Your task to perform on an android device: Open Wikipedia Image 0: 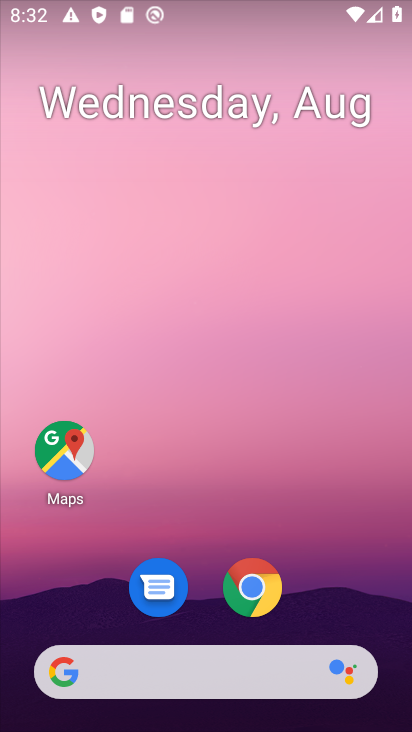
Step 0: drag from (315, 705) to (301, 245)
Your task to perform on an android device: Open Wikipedia Image 1: 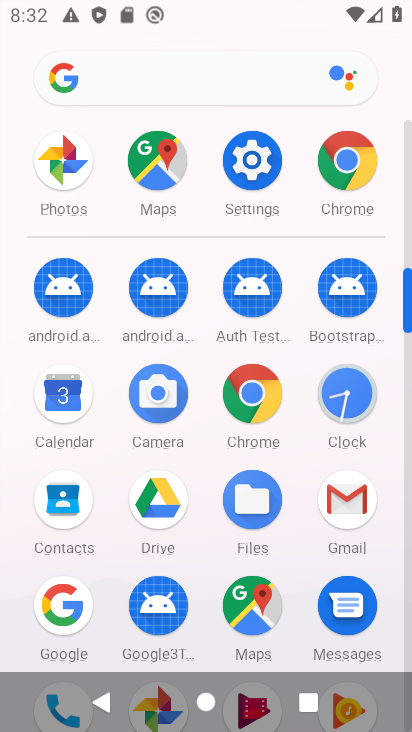
Step 1: click (354, 170)
Your task to perform on an android device: Open Wikipedia Image 2: 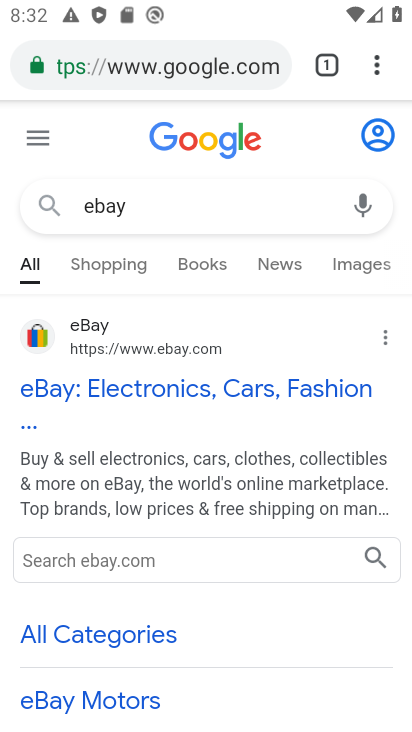
Step 2: drag from (372, 47) to (113, 120)
Your task to perform on an android device: Open Wikipedia Image 3: 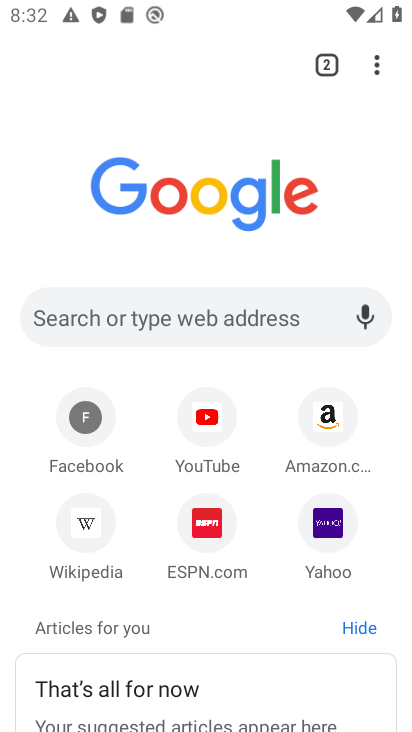
Step 3: click (81, 531)
Your task to perform on an android device: Open Wikipedia Image 4: 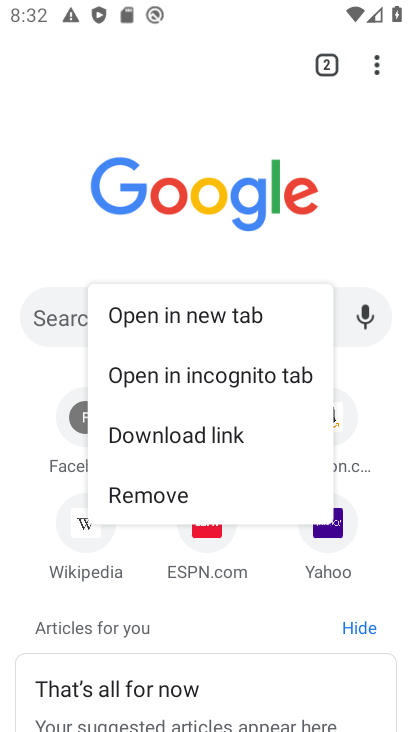
Step 4: click (81, 531)
Your task to perform on an android device: Open Wikipedia Image 5: 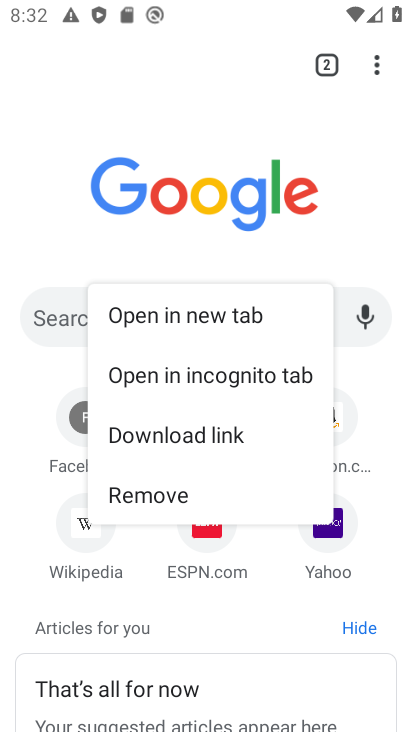
Step 5: click (87, 523)
Your task to perform on an android device: Open Wikipedia Image 6: 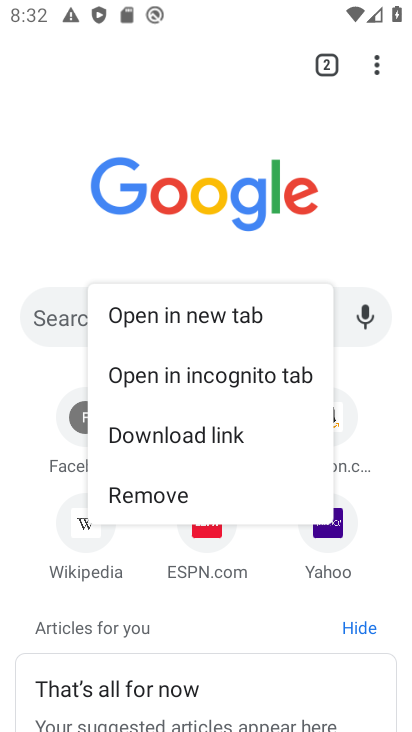
Step 6: click (85, 523)
Your task to perform on an android device: Open Wikipedia Image 7: 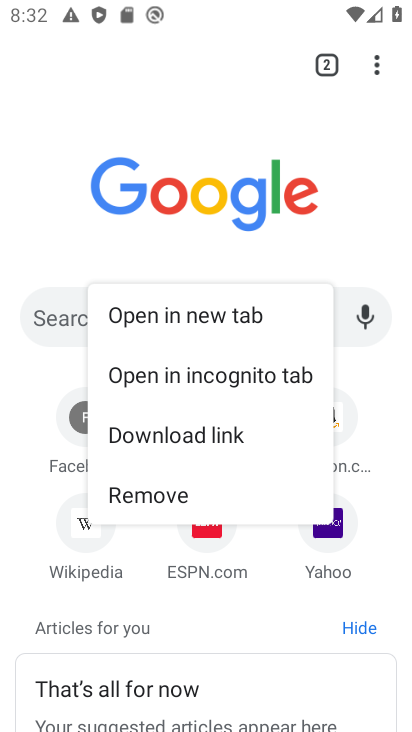
Step 7: click (89, 564)
Your task to perform on an android device: Open Wikipedia Image 8: 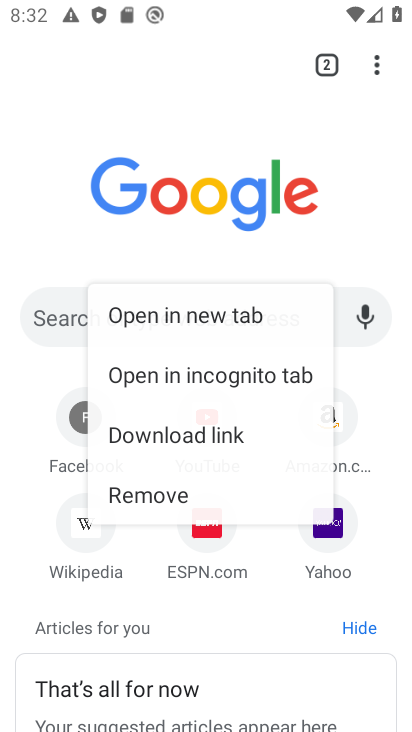
Step 8: click (89, 564)
Your task to perform on an android device: Open Wikipedia Image 9: 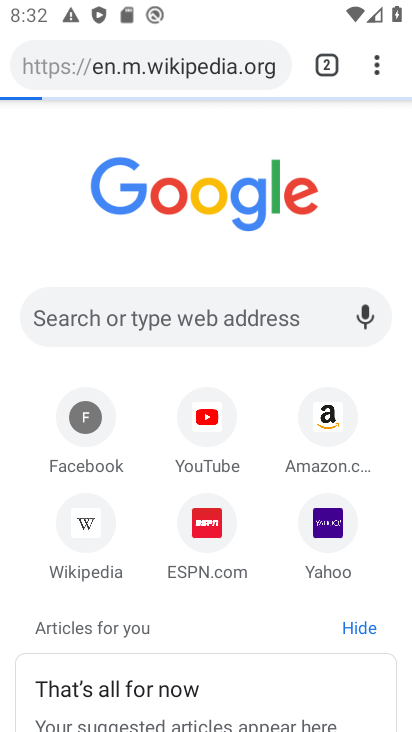
Step 9: click (84, 527)
Your task to perform on an android device: Open Wikipedia Image 10: 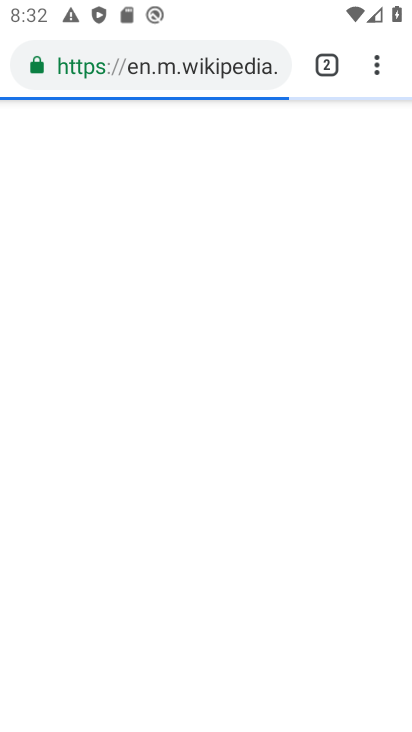
Step 10: click (82, 522)
Your task to perform on an android device: Open Wikipedia Image 11: 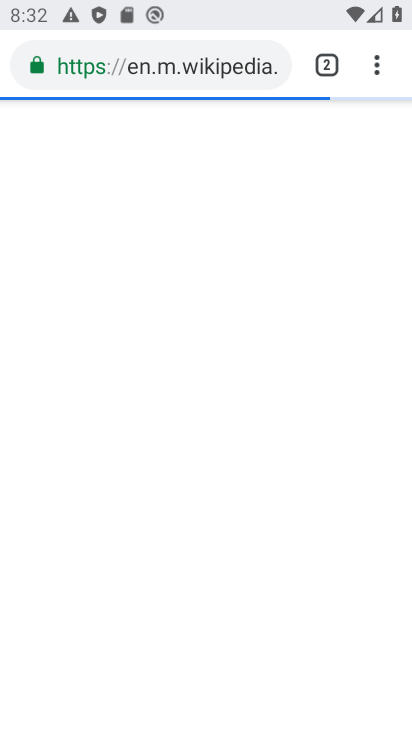
Step 11: click (82, 522)
Your task to perform on an android device: Open Wikipedia Image 12: 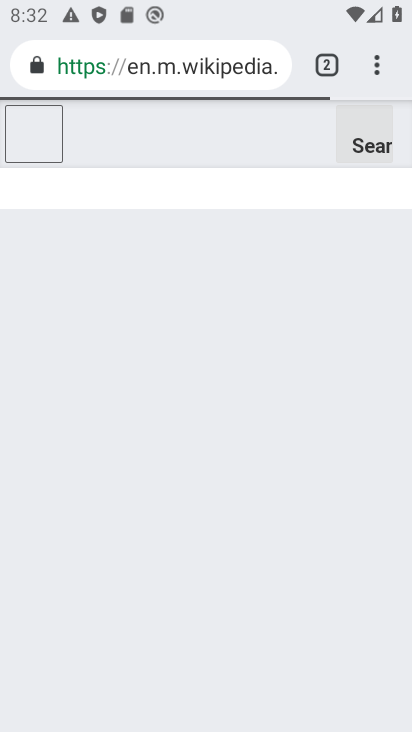
Step 12: task complete